Your task to perform on an android device: turn on javascript in the chrome app Image 0: 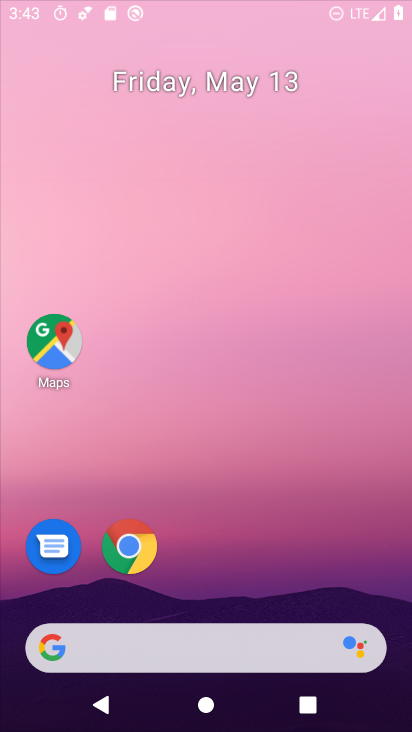
Step 0: click (275, 256)
Your task to perform on an android device: turn on javascript in the chrome app Image 1: 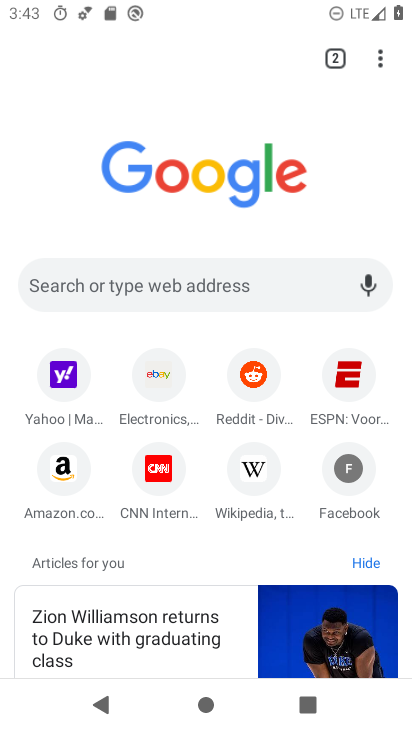
Step 1: click (392, 63)
Your task to perform on an android device: turn on javascript in the chrome app Image 2: 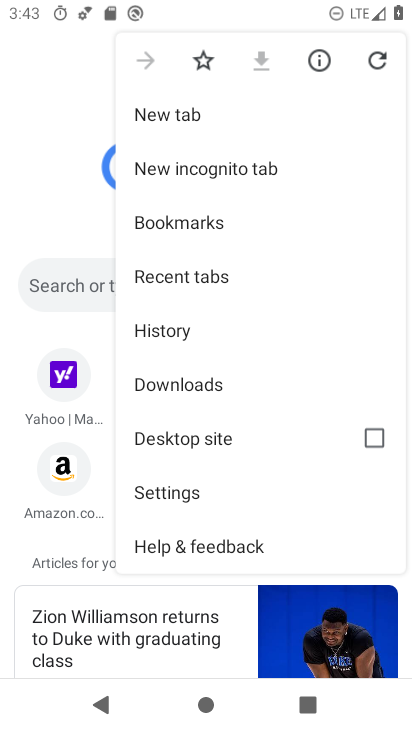
Step 2: drag from (271, 355) to (303, 142)
Your task to perform on an android device: turn on javascript in the chrome app Image 3: 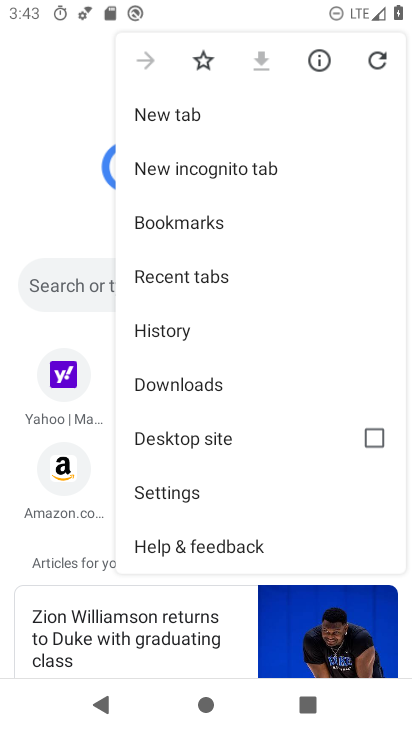
Step 3: click (213, 489)
Your task to perform on an android device: turn on javascript in the chrome app Image 4: 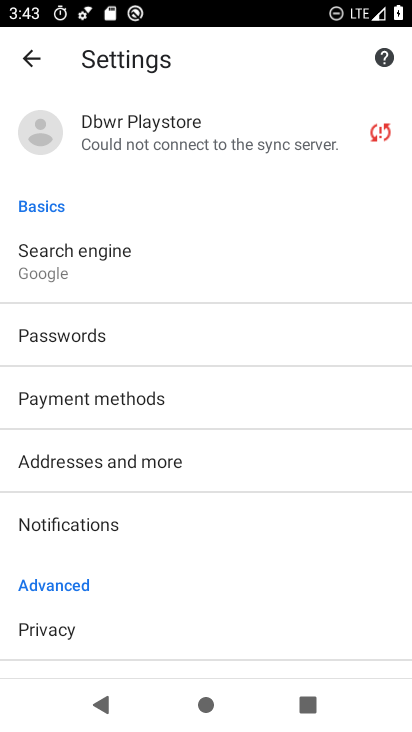
Step 4: drag from (215, 477) to (251, 249)
Your task to perform on an android device: turn on javascript in the chrome app Image 5: 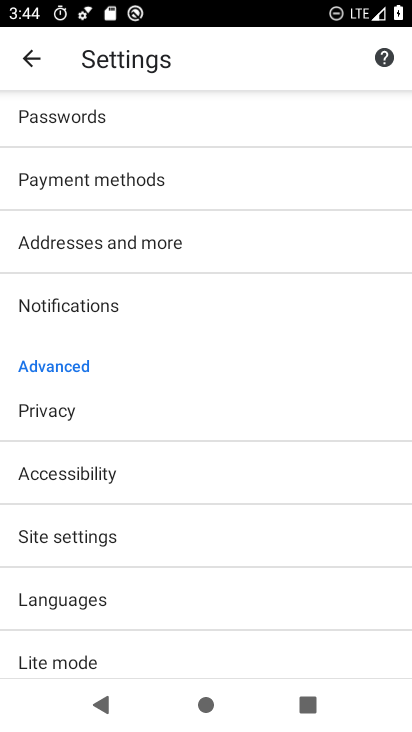
Step 5: click (122, 538)
Your task to perform on an android device: turn on javascript in the chrome app Image 6: 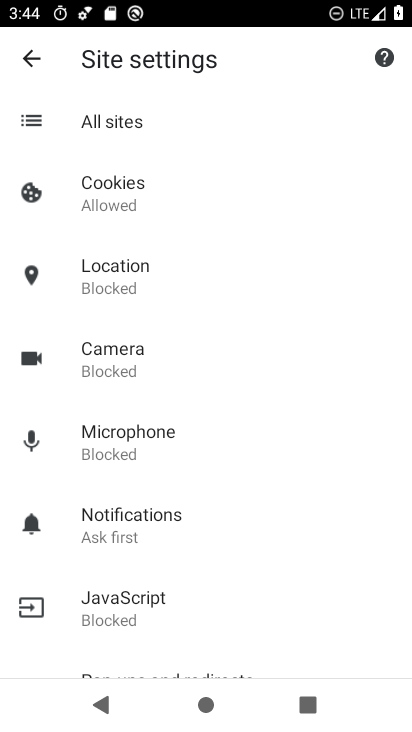
Step 6: drag from (191, 338) to (197, 468)
Your task to perform on an android device: turn on javascript in the chrome app Image 7: 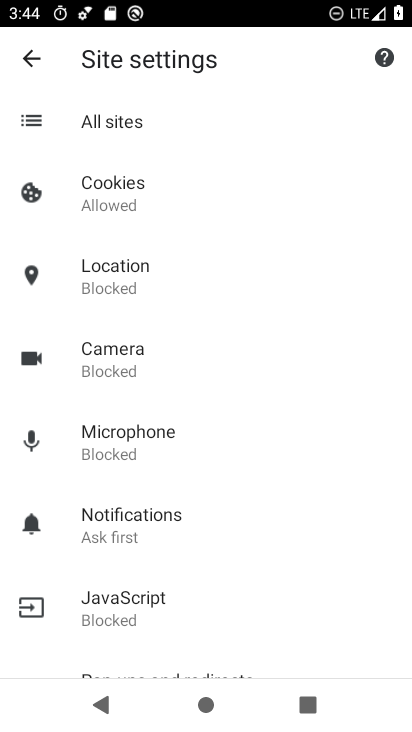
Step 7: click (171, 609)
Your task to perform on an android device: turn on javascript in the chrome app Image 8: 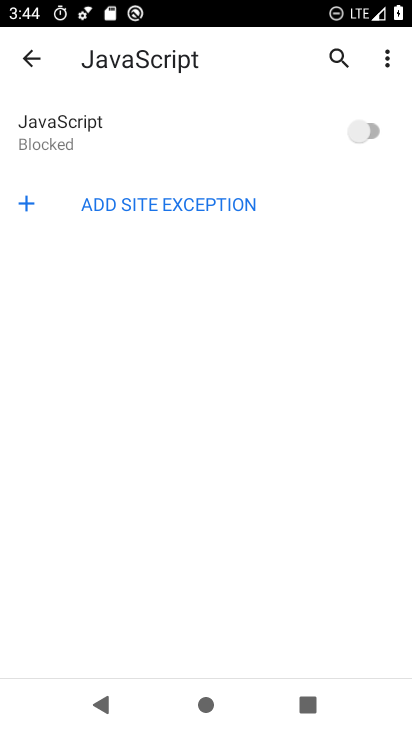
Step 8: click (287, 147)
Your task to perform on an android device: turn on javascript in the chrome app Image 9: 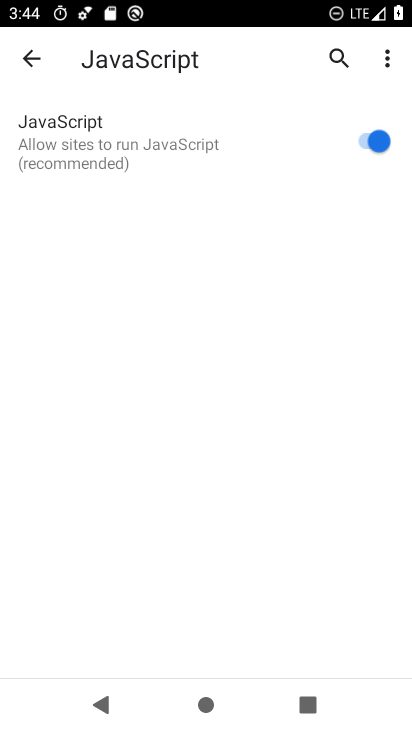
Step 9: task complete